Your task to perform on an android device: toggle wifi Image 0: 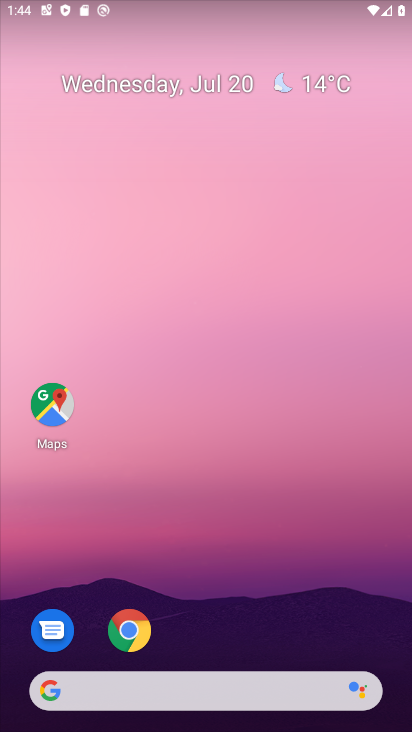
Step 0: drag from (217, 717) to (193, 212)
Your task to perform on an android device: toggle wifi Image 1: 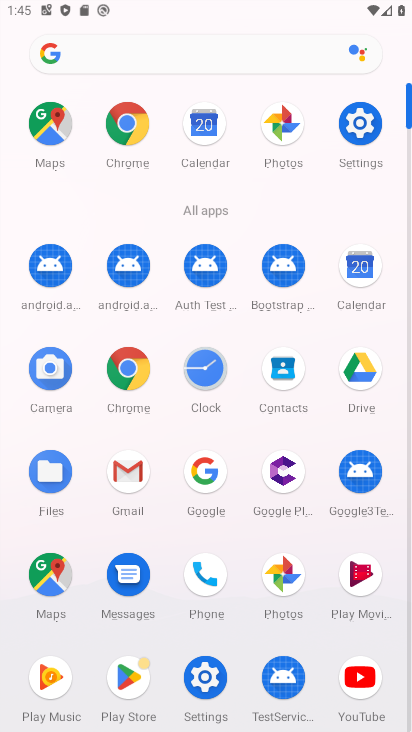
Step 1: click (363, 127)
Your task to perform on an android device: toggle wifi Image 2: 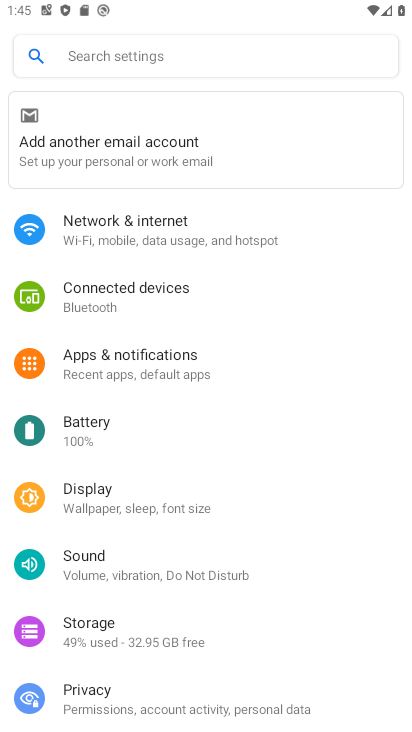
Step 2: click (144, 231)
Your task to perform on an android device: toggle wifi Image 3: 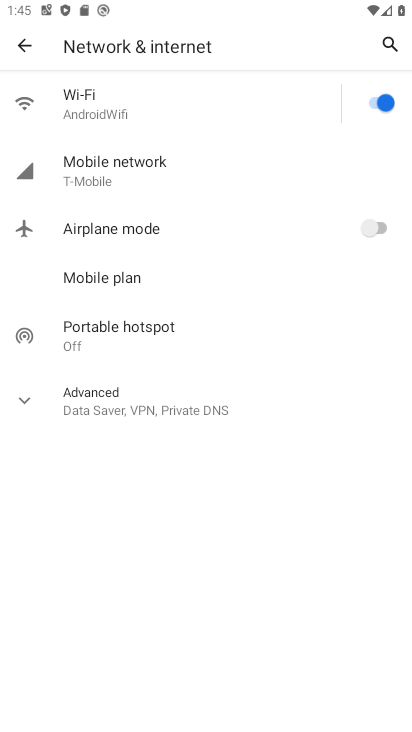
Step 3: click (151, 102)
Your task to perform on an android device: toggle wifi Image 4: 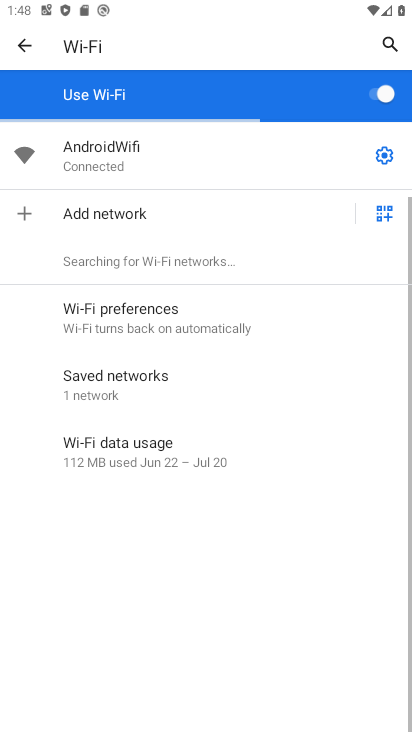
Step 4: click (162, 164)
Your task to perform on an android device: toggle wifi Image 5: 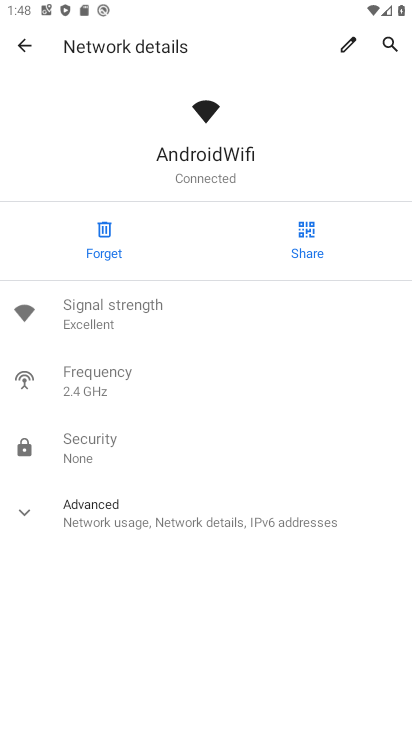
Step 5: task complete